Your task to perform on an android device: toggle notifications settings in the gmail app Image 0: 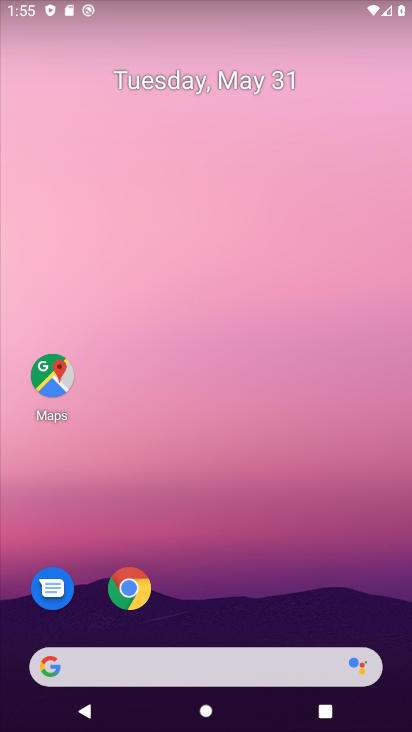
Step 0: drag from (158, 724) to (138, 69)
Your task to perform on an android device: toggle notifications settings in the gmail app Image 1: 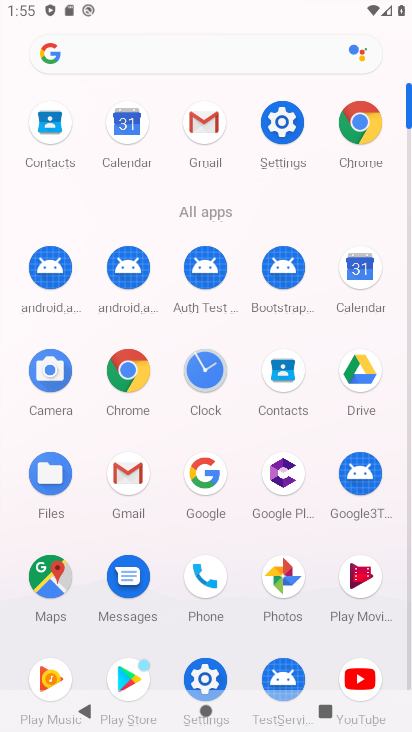
Step 1: click (206, 132)
Your task to perform on an android device: toggle notifications settings in the gmail app Image 2: 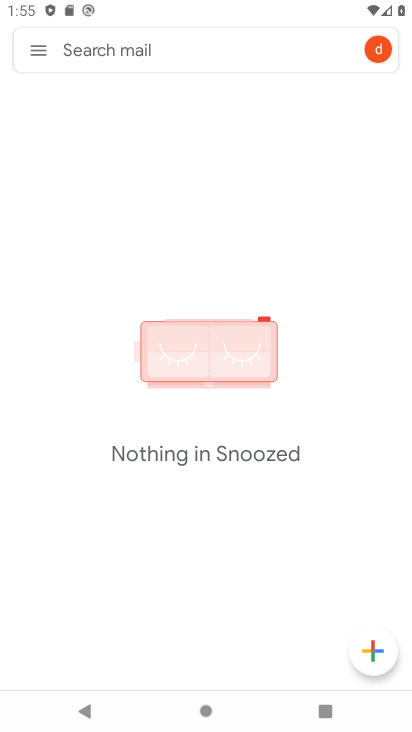
Step 2: click (35, 52)
Your task to perform on an android device: toggle notifications settings in the gmail app Image 3: 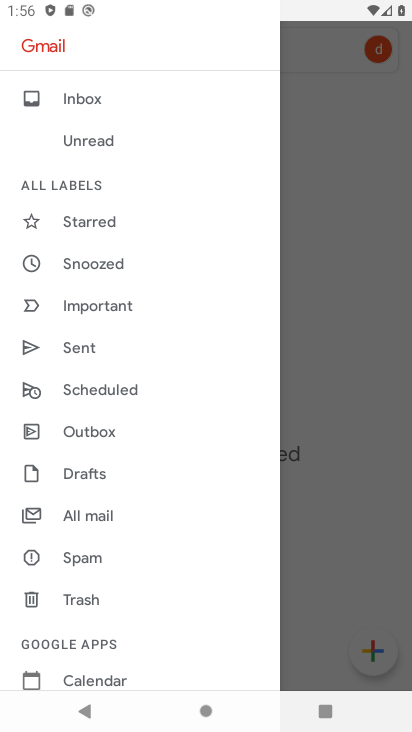
Step 3: drag from (99, 632) to (109, 269)
Your task to perform on an android device: toggle notifications settings in the gmail app Image 4: 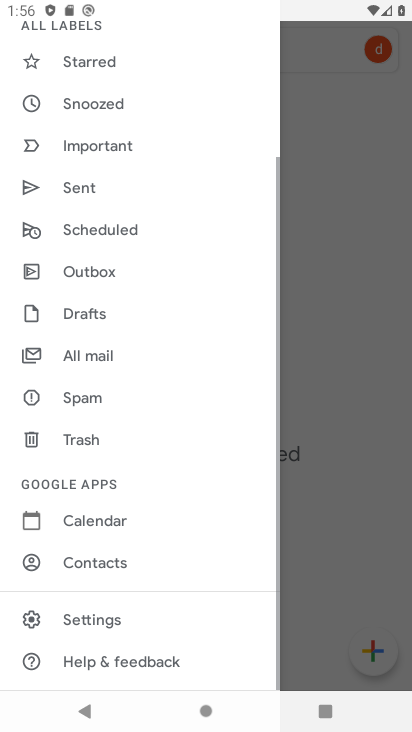
Step 4: drag from (179, 640) to (213, 253)
Your task to perform on an android device: toggle notifications settings in the gmail app Image 5: 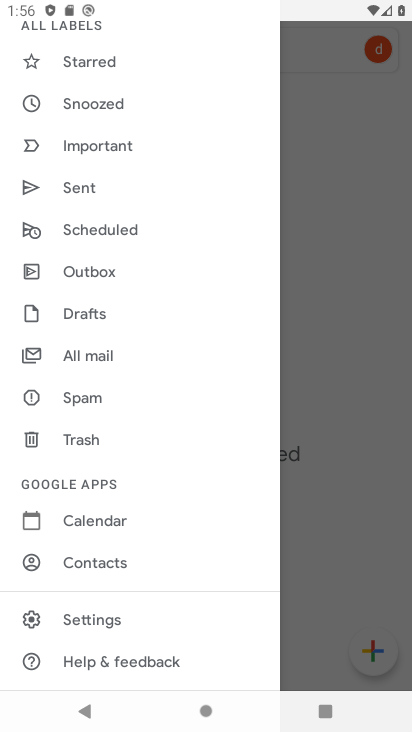
Step 5: drag from (130, 621) to (176, 162)
Your task to perform on an android device: toggle notifications settings in the gmail app Image 6: 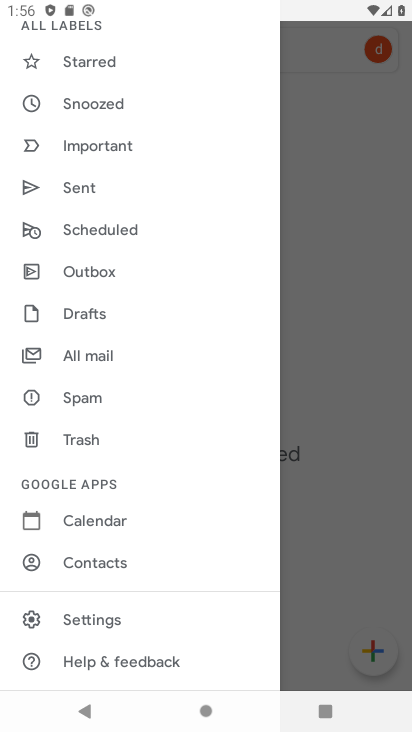
Step 6: click (93, 626)
Your task to perform on an android device: toggle notifications settings in the gmail app Image 7: 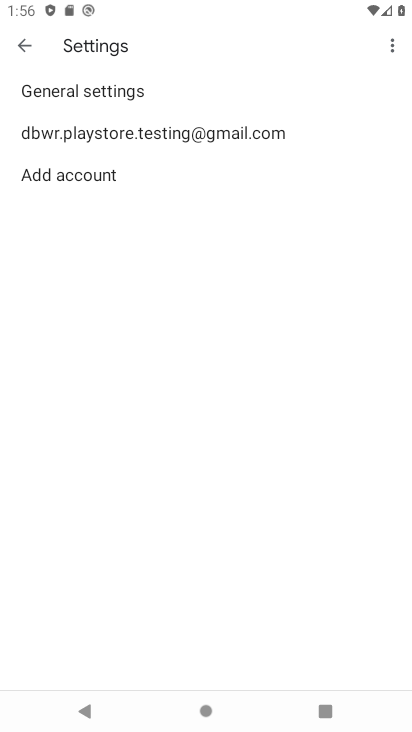
Step 7: click (92, 144)
Your task to perform on an android device: toggle notifications settings in the gmail app Image 8: 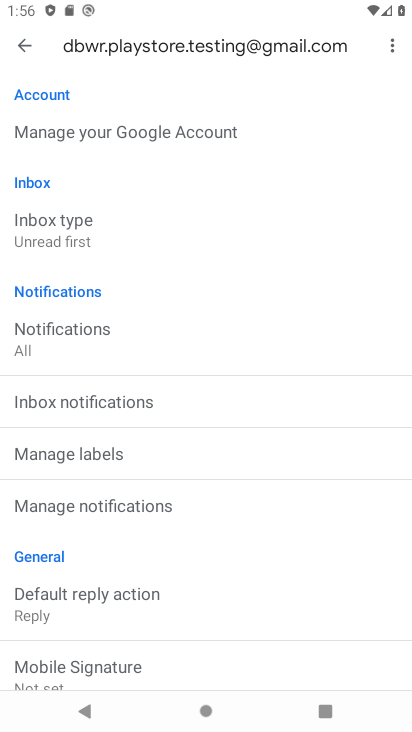
Step 8: click (65, 344)
Your task to perform on an android device: toggle notifications settings in the gmail app Image 9: 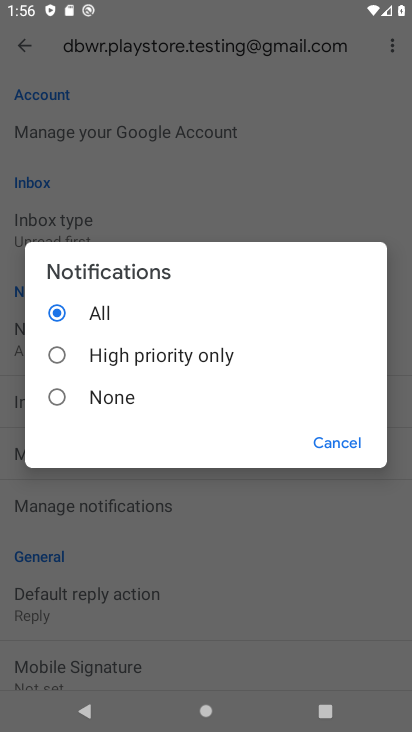
Step 9: click (127, 360)
Your task to perform on an android device: toggle notifications settings in the gmail app Image 10: 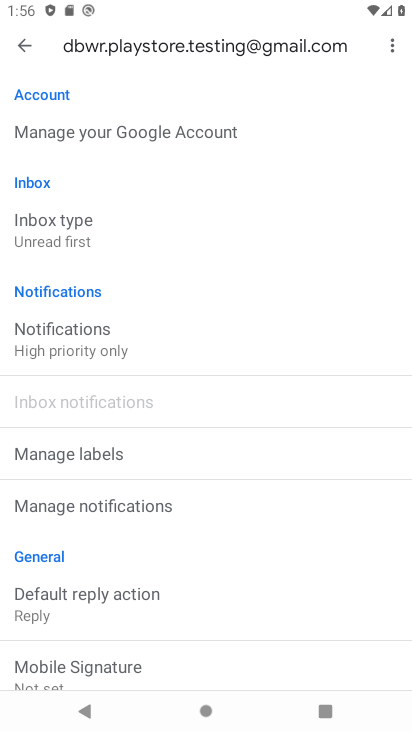
Step 10: task complete